Your task to perform on an android device: star an email in the gmail app Image 0: 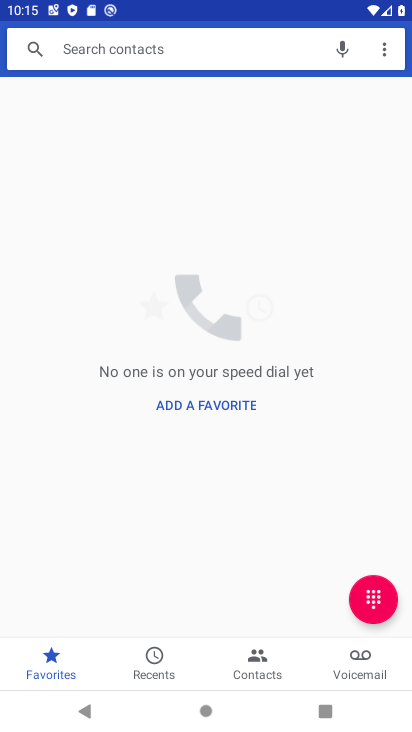
Step 0: press home button
Your task to perform on an android device: star an email in the gmail app Image 1: 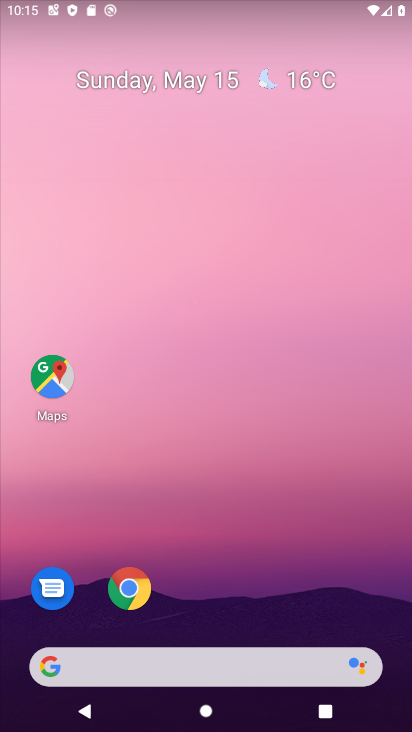
Step 1: drag from (207, 634) to (260, 0)
Your task to perform on an android device: star an email in the gmail app Image 2: 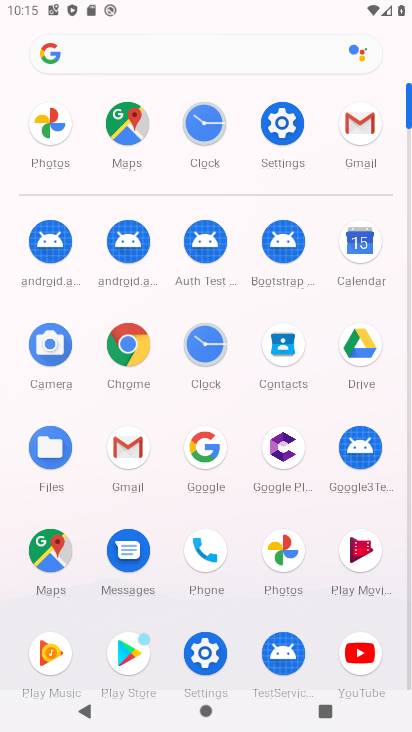
Step 2: click (348, 114)
Your task to perform on an android device: star an email in the gmail app Image 3: 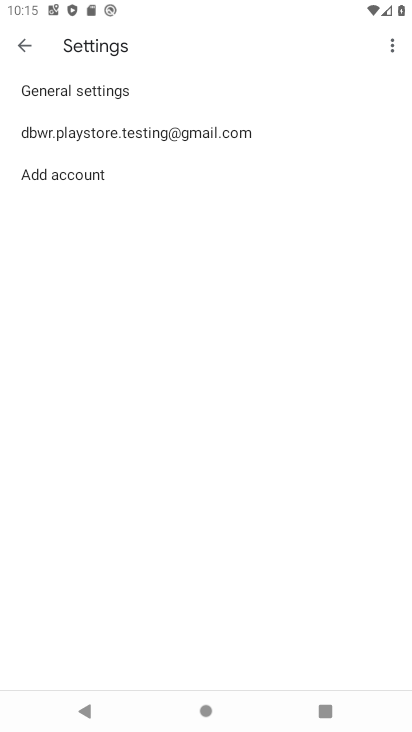
Step 3: click (23, 47)
Your task to perform on an android device: star an email in the gmail app Image 4: 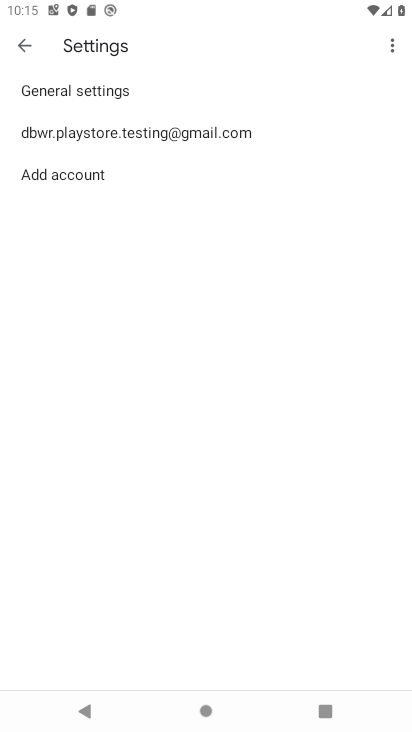
Step 4: click (23, 47)
Your task to perform on an android device: star an email in the gmail app Image 5: 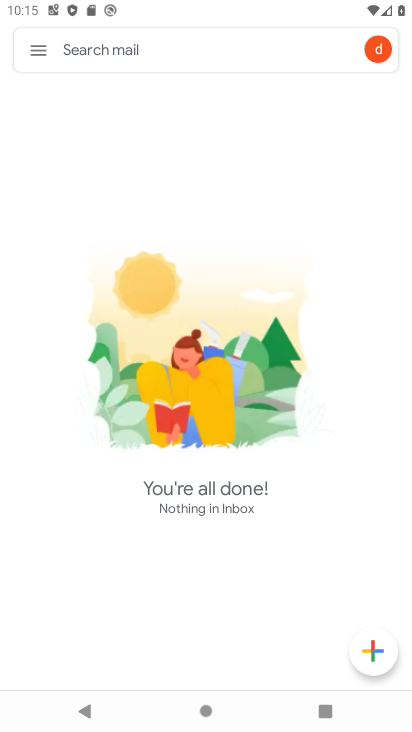
Step 5: task complete